Your task to perform on an android device: turn on showing notifications on the lock screen Image 0: 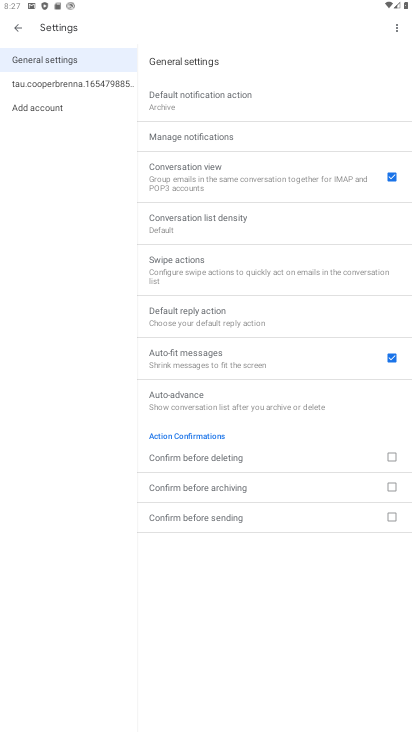
Step 0: press home button
Your task to perform on an android device: turn on showing notifications on the lock screen Image 1: 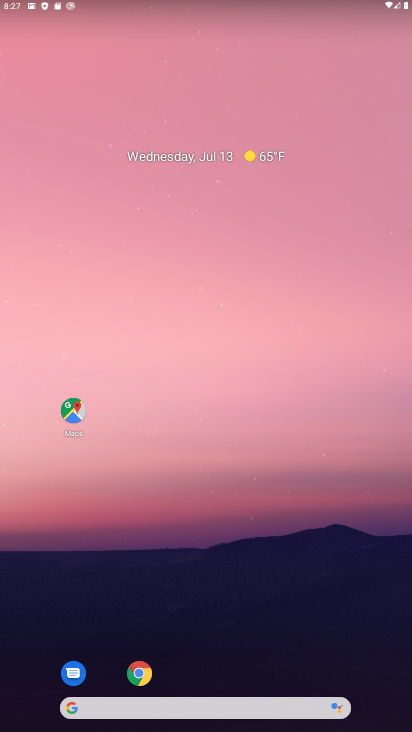
Step 1: drag from (191, 705) to (224, 204)
Your task to perform on an android device: turn on showing notifications on the lock screen Image 2: 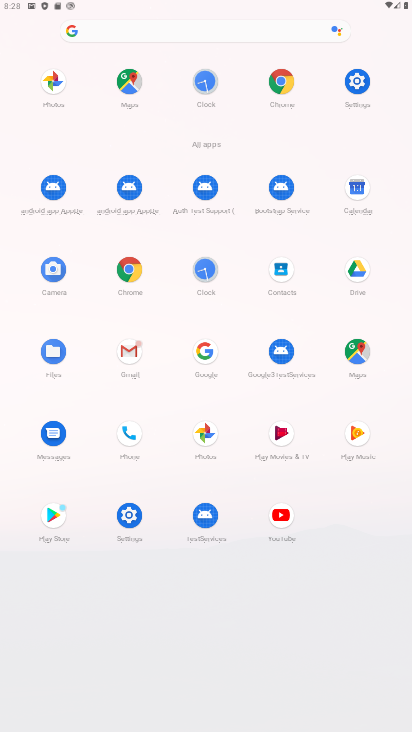
Step 2: click (359, 79)
Your task to perform on an android device: turn on showing notifications on the lock screen Image 3: 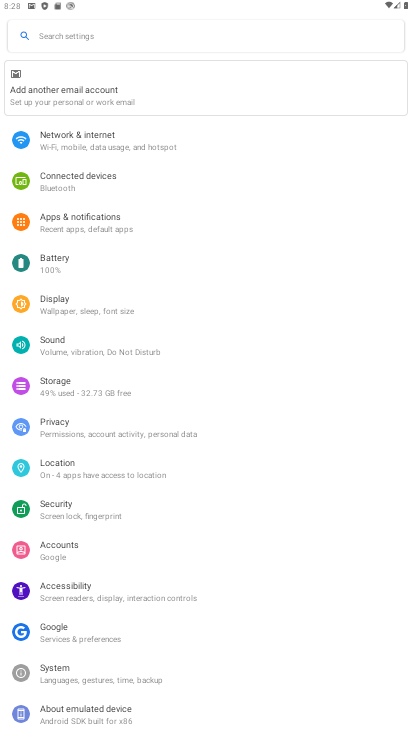
Step 3: click (74, 223)
Your task to perform on an android device: turn on showing notifications on the lock screen Image 4: 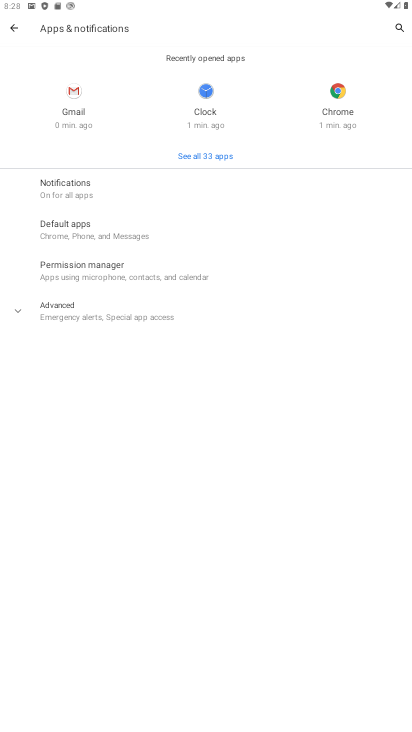
Step 4: click (68, 192)
Your task to perform on an android device: turn on showing notifications on the lock screen Image 5: 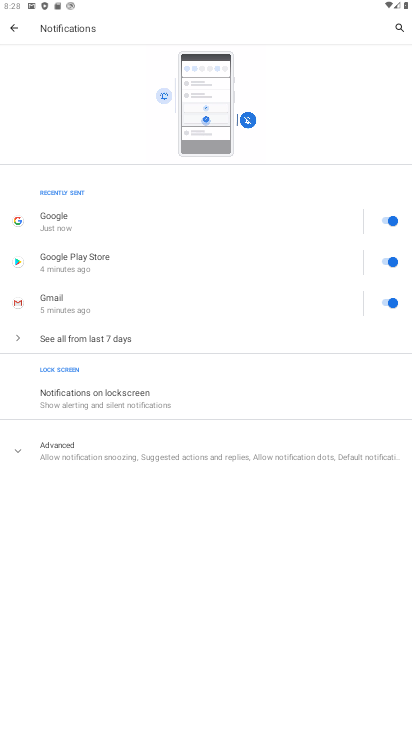
Step 5: click (90, 396)
Your task to perform on an android device: turn on showing notifications on the lock screen Image 6: 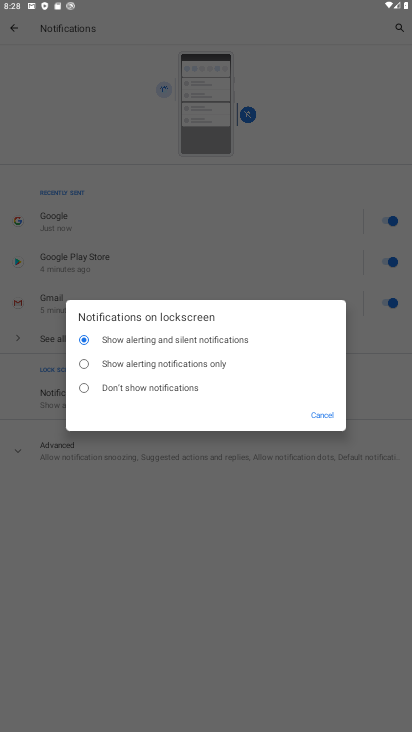
Step 6: click (85, 335)
Your task to perform on an android device: turn on showing notifications on the lock screen Image 7: 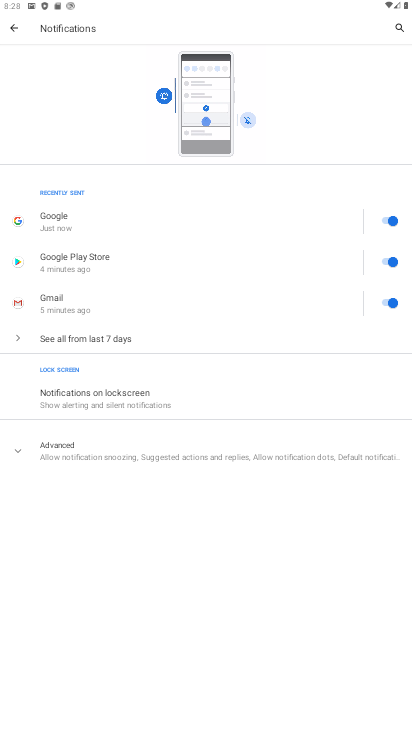
Step 7: task complete